Your task to perform on an android device: turn on airplane mode Image 0: 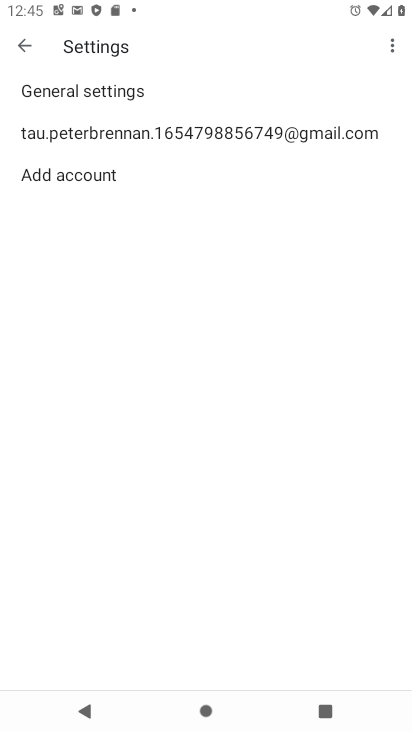
Step 0: press home button
Your task to perform on an android device: turn on airplane mode Image 1: 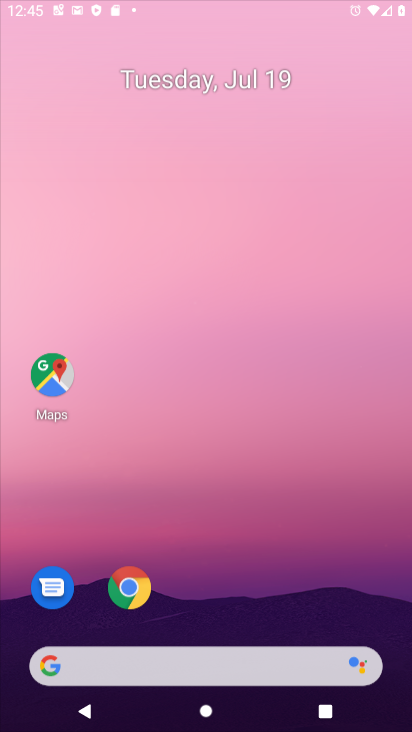
Step 1: drag from (208, 7) to (266, 686)
Your task to perform on an android device: turn on airplane mode Image 2: 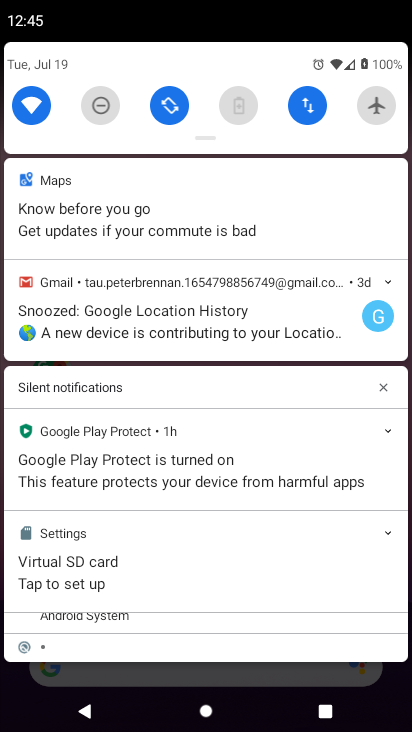
Step 2: click (385, 113)
Your task to perform on an android device: turn on airplane mode Image 3: 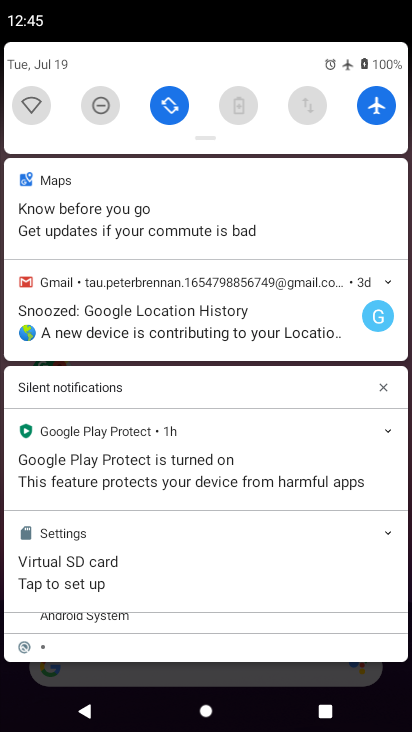
Step 3: task complete